Your task to perform on an android device: What's the weather going to be tomorrow? Image 0: 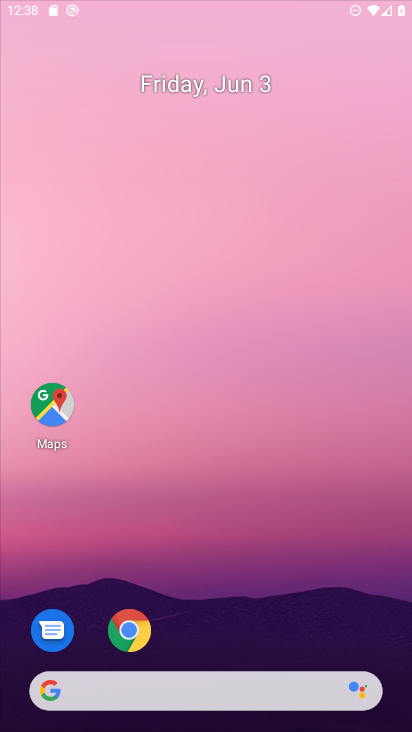
Step 0: click (126, 632)
Your task to perform on an android device: What's the weather going to be tomorrow? Image 1: 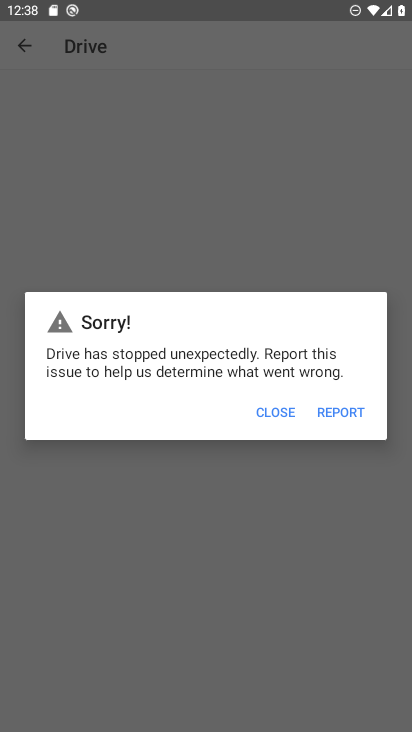
Step 1: press home button
Your task to perform on an android device: What's the weather going to be tomorrow? Image 2: 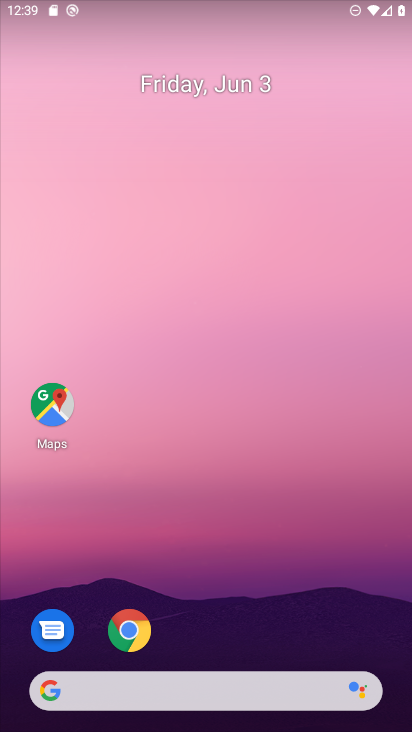
Step 2: click (140, 628)
Your task to perform on an android device: What's the weather going to be tomorrow? Image 3: 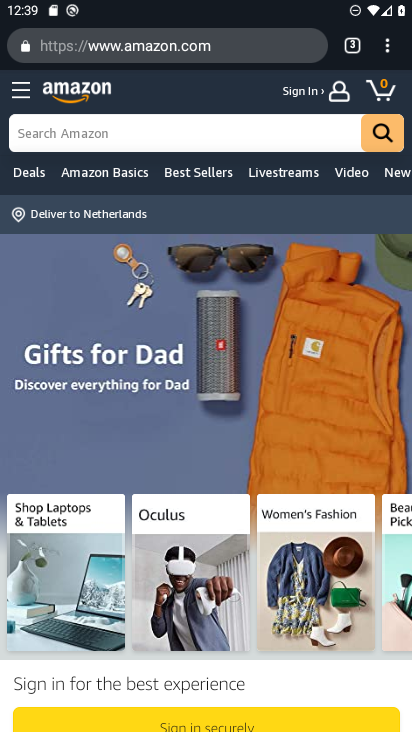
Step 3: click (170, 56)
Your task to perform on an android device: What's the weather going to be tomorrow? Image 4: 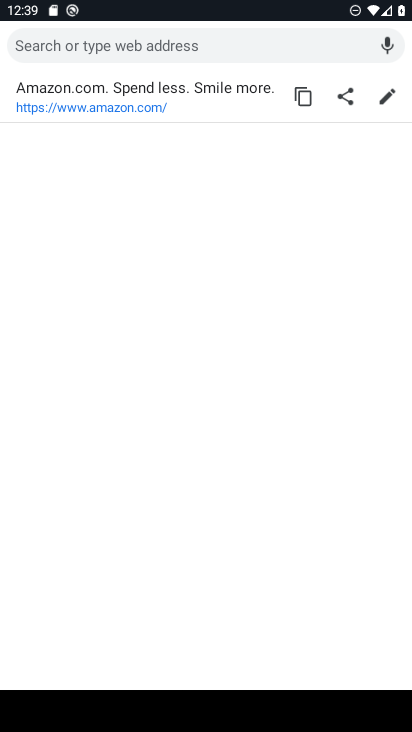
Step 4: click (221, 46)
Your task to perform on an android device: What's the weather going to be tomorrow? Image 5: 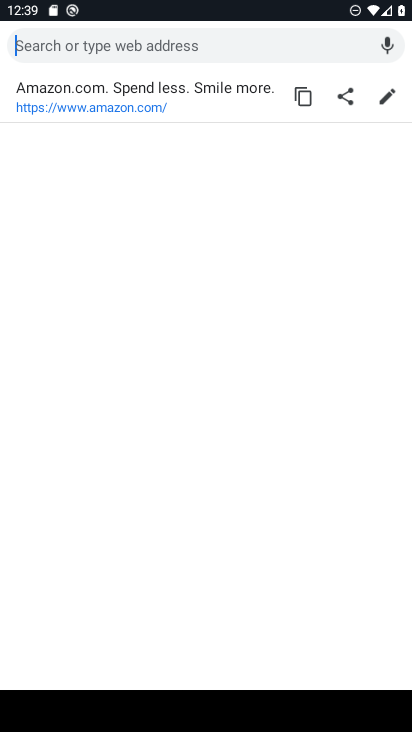
Step 5: type "What's the weather going to be tomorrow?"
Your task to perform on an android device: What's the weather going to be tomorrow? Image 6: 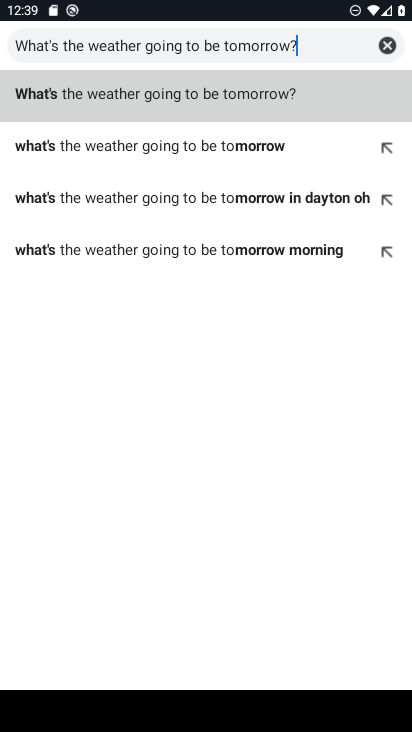
Step 6: click (265, 96)
Your task to perform on an android device: What's the weather going to be tomorrow? Image 7: 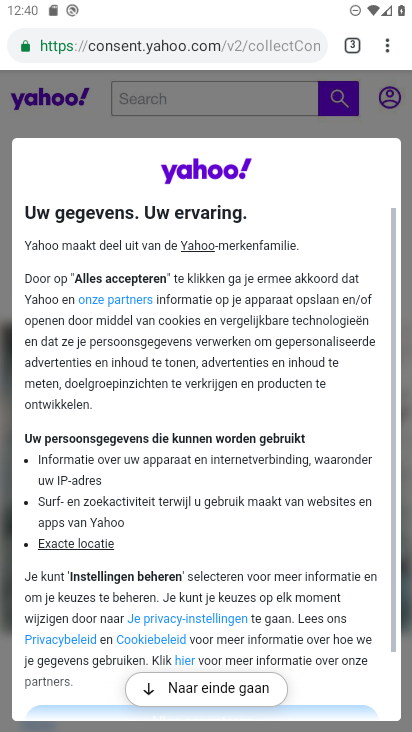
Step 7: drag from (335, 601) to (304, 231)
Your task to perform on an android device: What's the weather going to be tomorrow? Image 8: 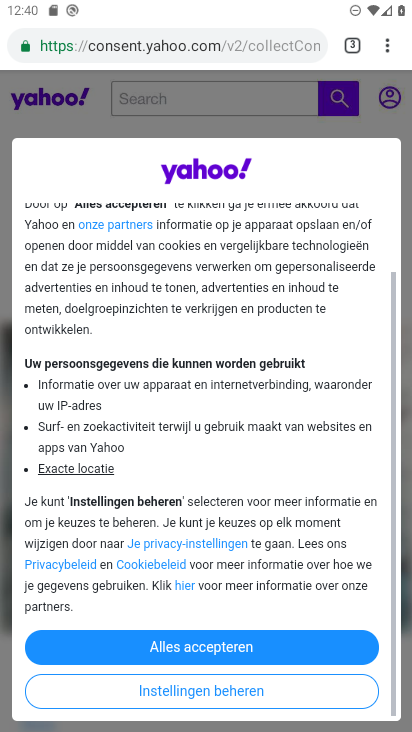
Step 8: click (282, 656)
Your task to perform on an android device: What's the weather going to be tomorrow? Image 9: 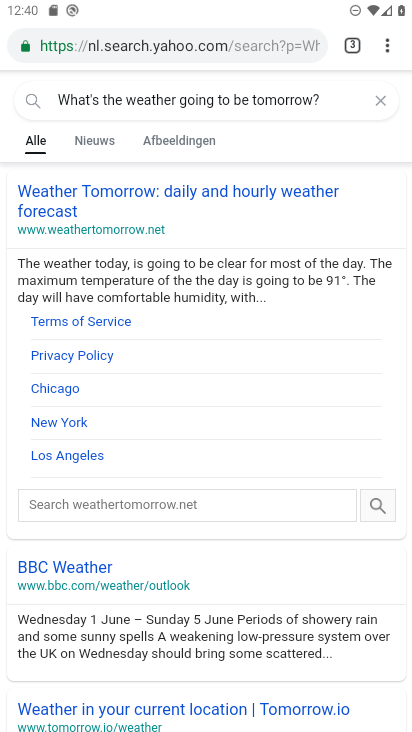
Step 9: click (179, 200)
Your task to perform on an android device: What's the weather going to be tomorrow? Image 10: 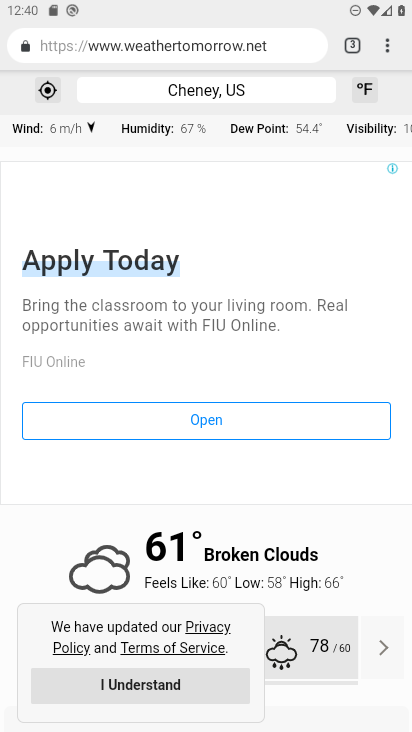
Step 10: task complete